Your task to perform on an android device: Open Google Image 0: 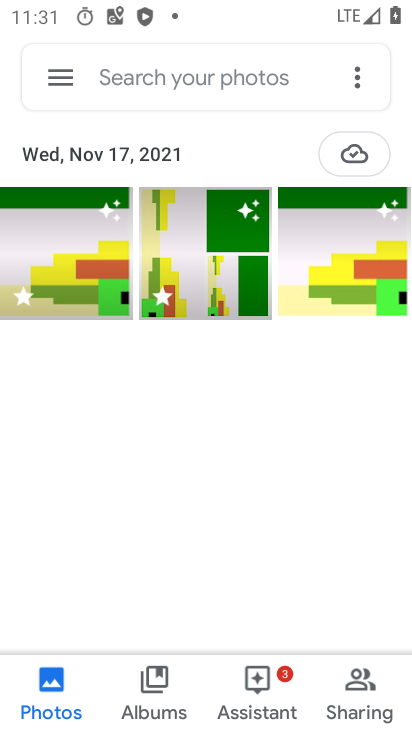
Step 0: press home button
Your task to perform on an android device: Open Google Image 1: 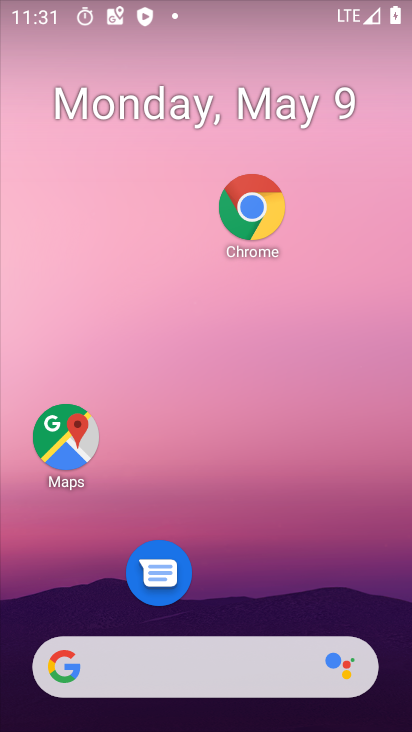
Step 1: drag from (239, 619) to (244, 134)
Your task to perform on an android device: Open Google Image 2: 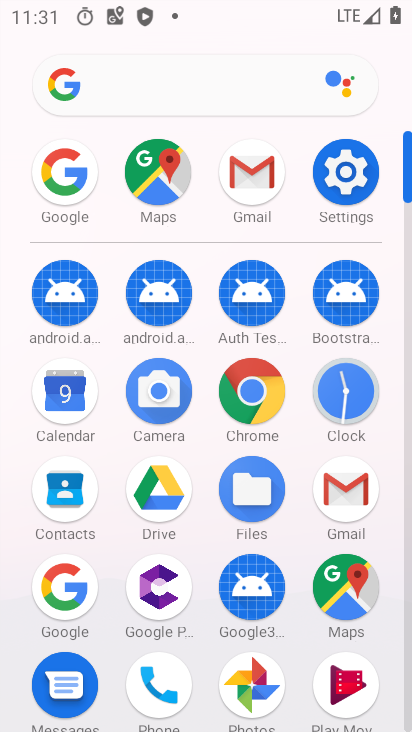
Step 2: drag from (211, 419) to (227, 300)
Your task to perform on an android device: Open Google Image 3: 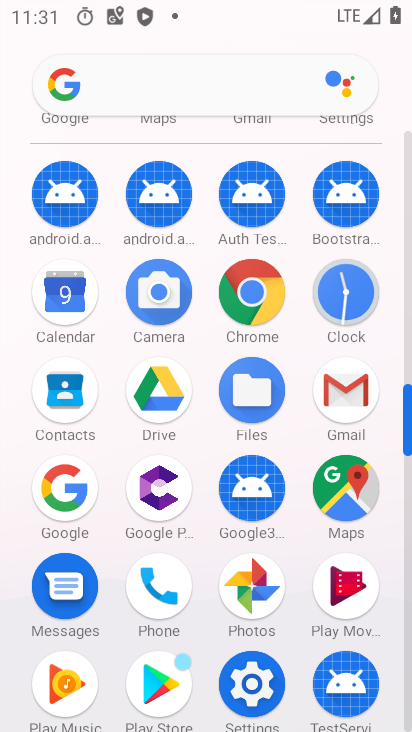
Step 3: drag from (203, 437) to (204, 291)
Your task to perform on an android device: Open Google Image 4: 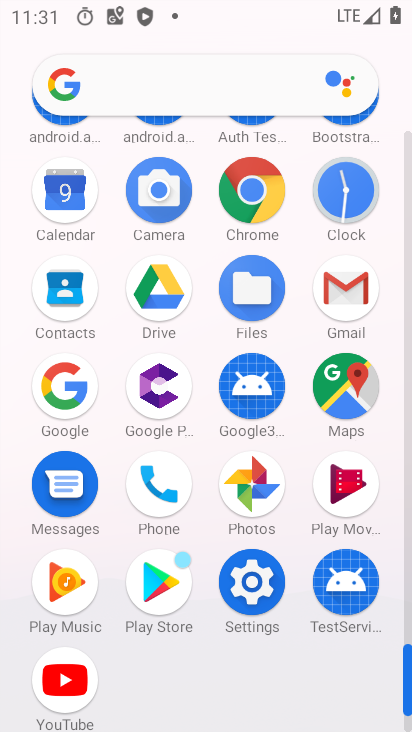
Step 4: click (261, 479)
Your task to perform on an android device: Open Google Image 5: 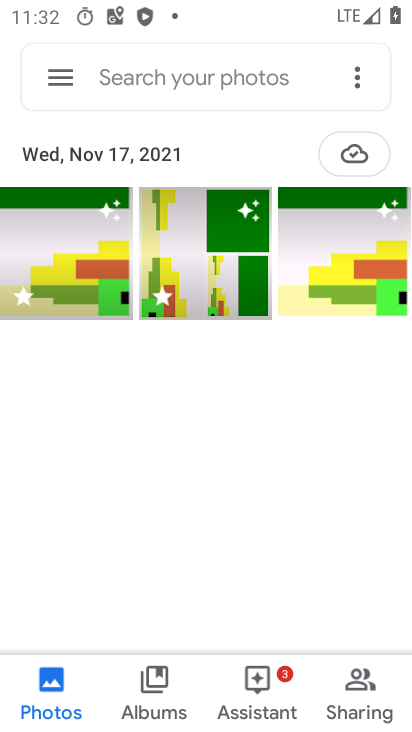
Step 5: press home button
Your task to perform on an android device: Open Google Image 6: 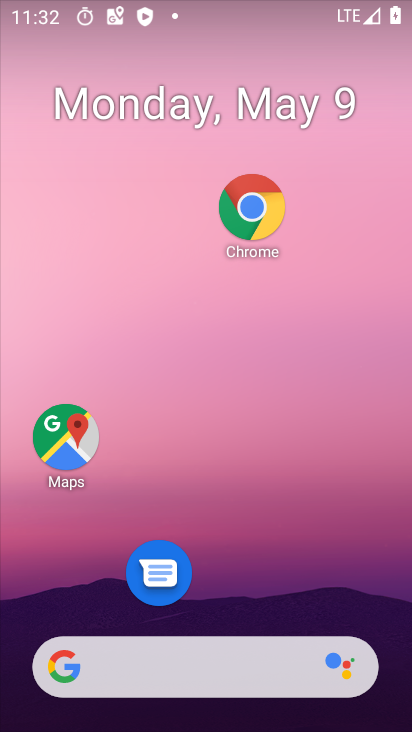
Step 6: drag from (152, 521) to (187, 61)
Your task to perform on an android device: Open Google Image 7: 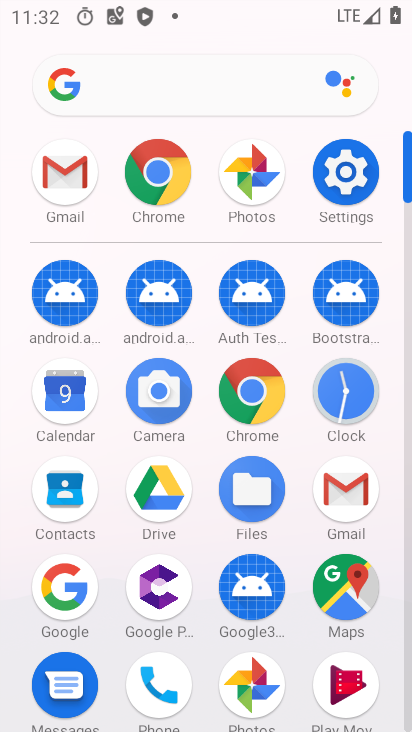
Step 7: click (58, 614)
Your task to perform on an android device: Open Google Image 8: 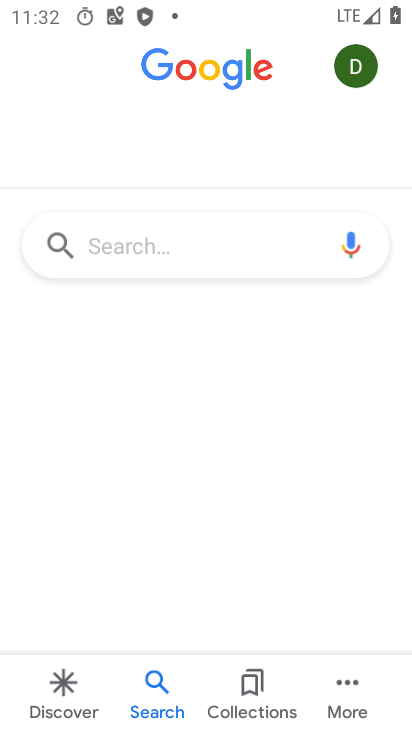
Step 8: task complete